Your task to perform on an android device: What's the time in San Francisco? Image 0: 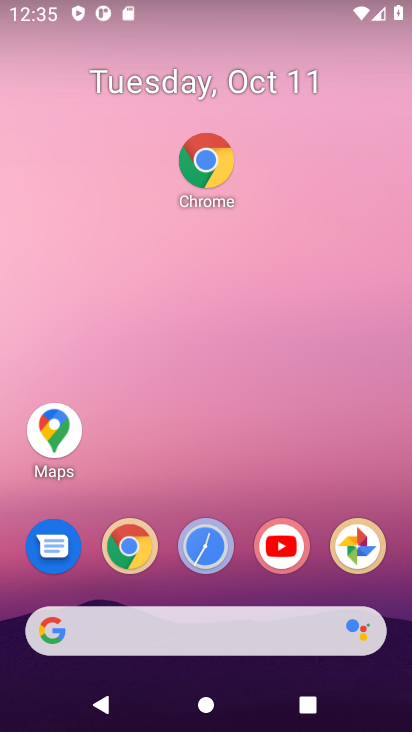
Step 0: click (133, 541)
Your task to perform on an android device: What's the time in San Francisco? Image 1: 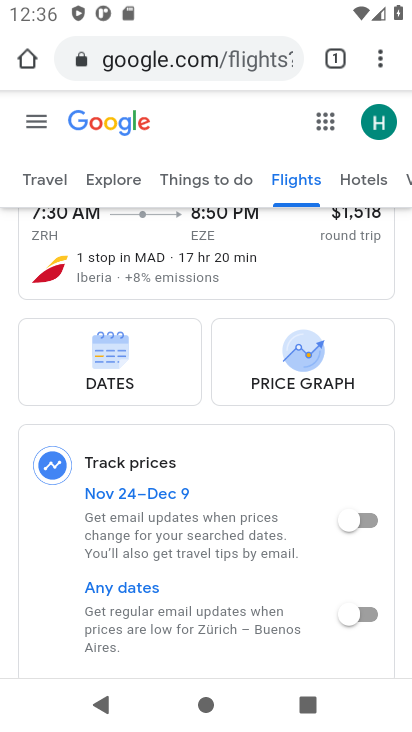
Step 1: click (228, 57)
Your task to perform on an android device: What's the time in San Francisco? Image 2: 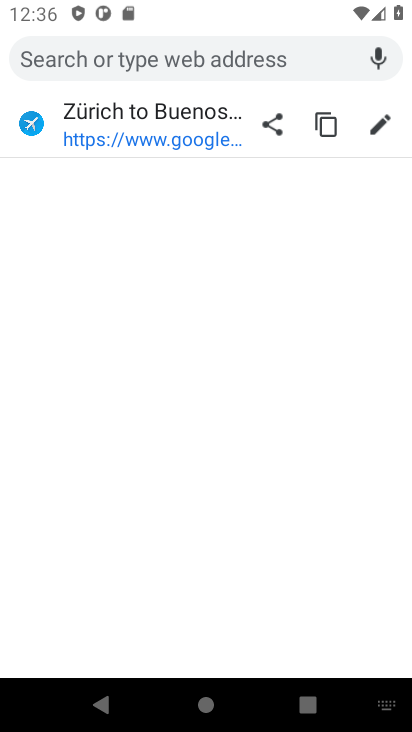
Step 2: type "time in San Francisco"
Your task to perform on an android device: What's the time in San Francisco? Image 3: 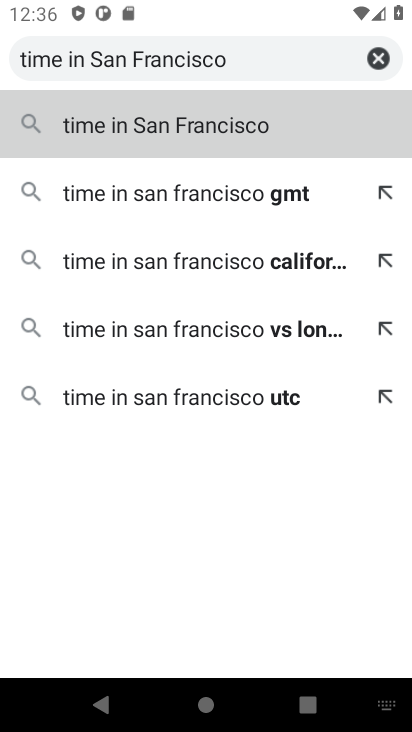
Step 3: type ""
Your task to perform on an android device: What's the time in San Francisco? Image 4: 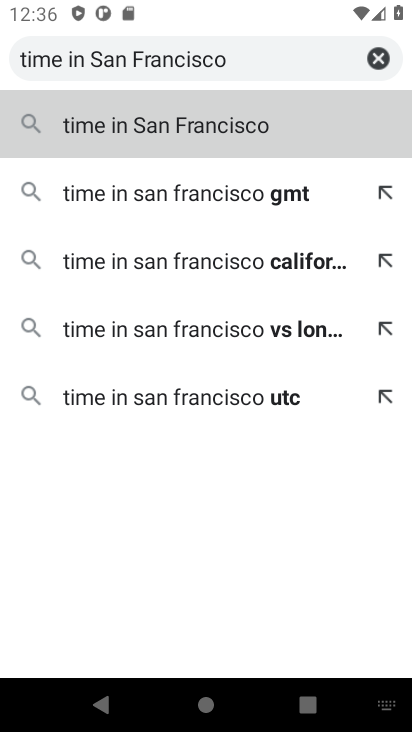
Step 4: press enter
Your task to perform on an android device: What's the time in San Francisco? Image 5: 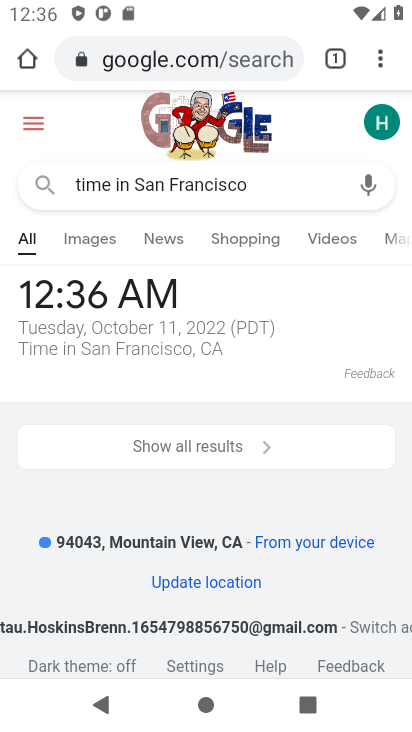
Step 5: task complete